Your task to perform on an android device: change notification settings in the gmail app Image 0: 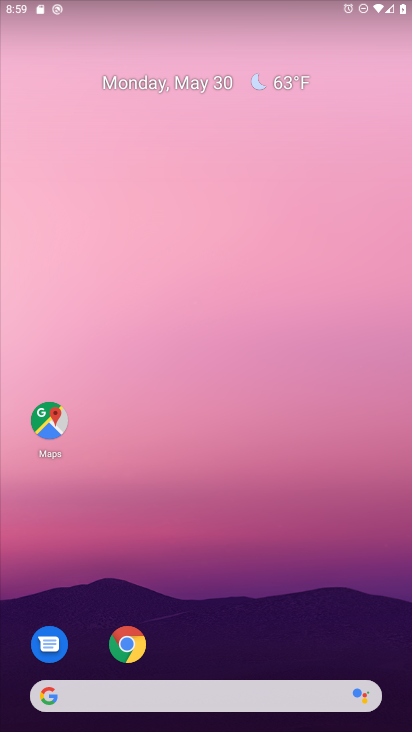
Step 0: drag from (205, 646) to (228, 78)
Your task to perform on an android device: change notification settings in the gmail app Image 1: 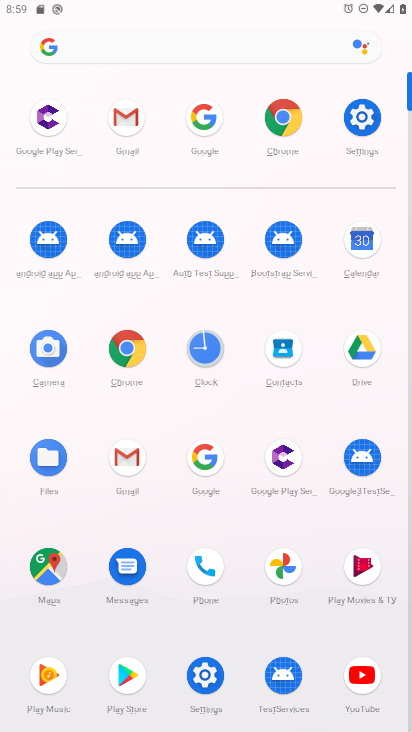
Step 1: click (127, 119)
Your task to perform on an android device: change notification settings in the gmail app Image 2: 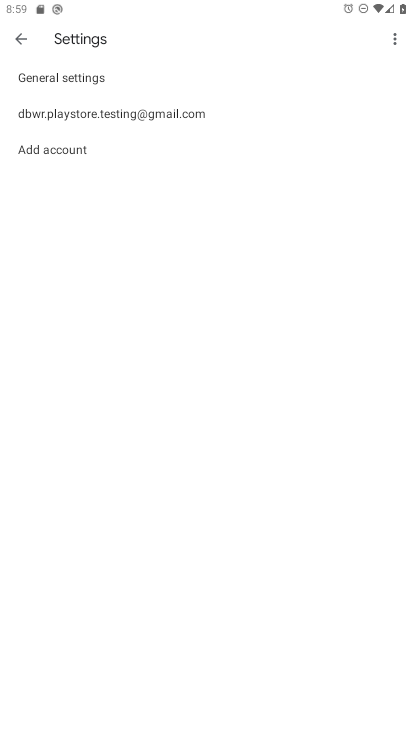
Step 2: click (101, 110)
Your task to perform on an android device: change notification settings in the gmail app Image 3: 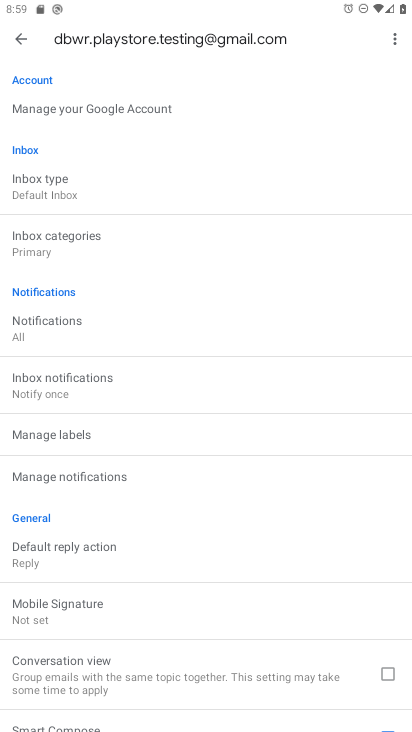
Step 3: click (80, 332)
Your task to perform on an android device: change notification settings in the gmail app Image 4: 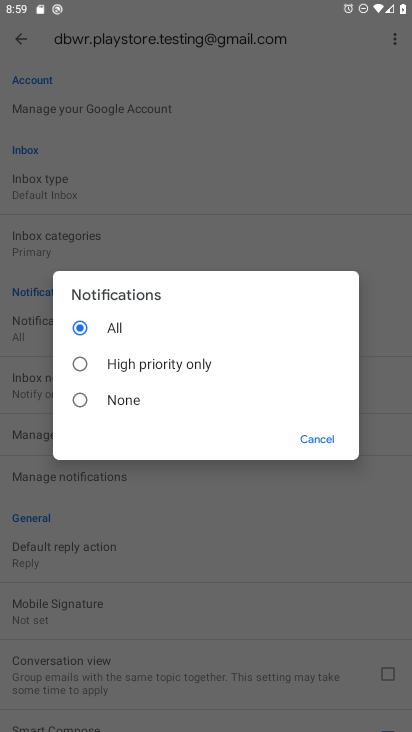
Step 4: click (80, 398)
Your task to perform on an android device: change notification settings in the gmail app Image 5: 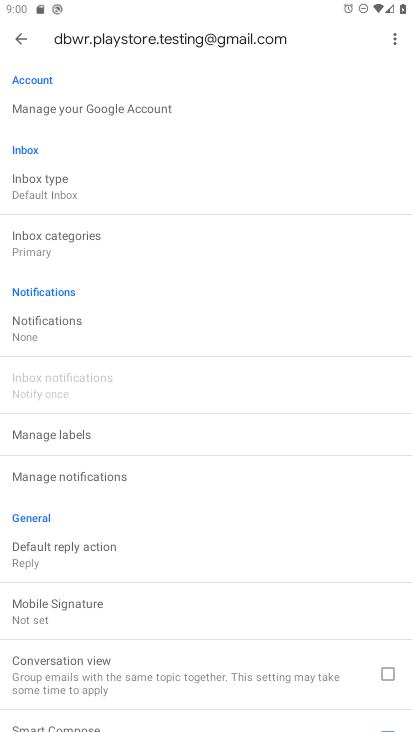
Step 5: task complete